Your task to perform on an android device: set an alarm Image 0: 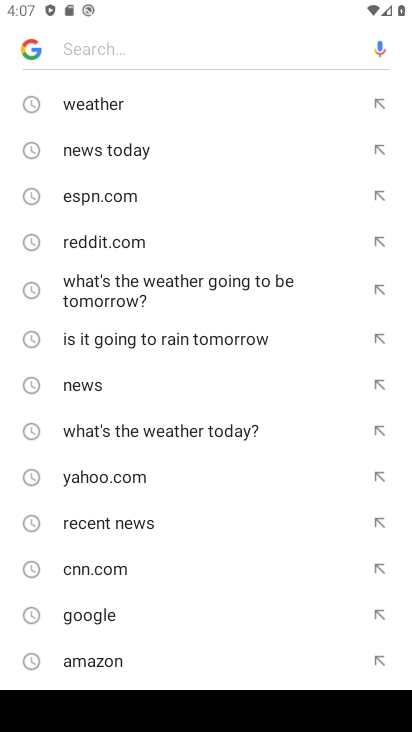
Step 0: press home button
Your task to perform on an android device: set an alarm Image 1: 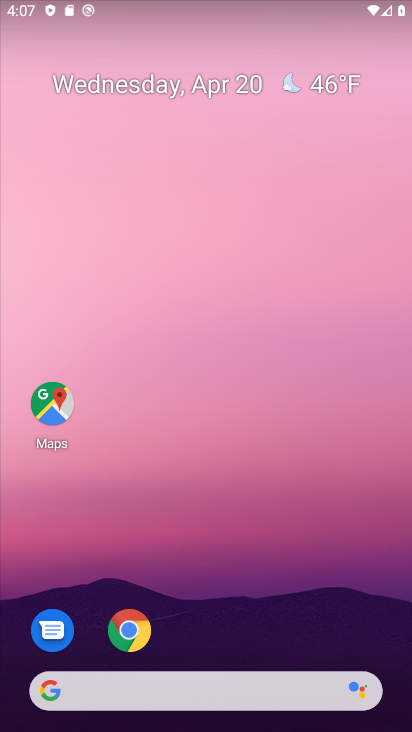
Step 1: drag from (194, 628) to (206, 127)
Your task to perform on an android device: set an alarm Image 2: 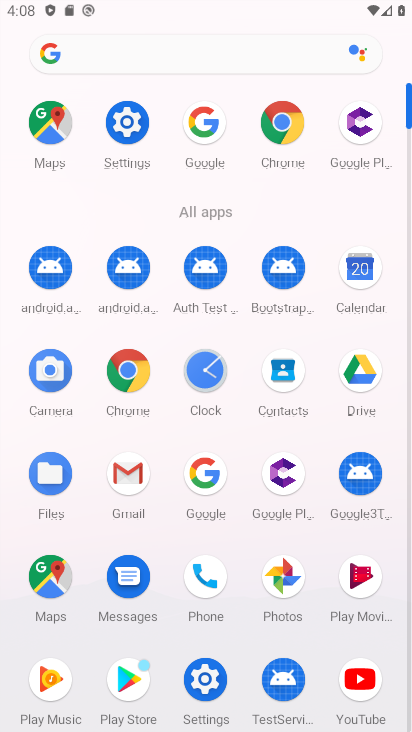
Step 2: click (206, 374)
Your task to perform on an android device: set an alarm Image 3: 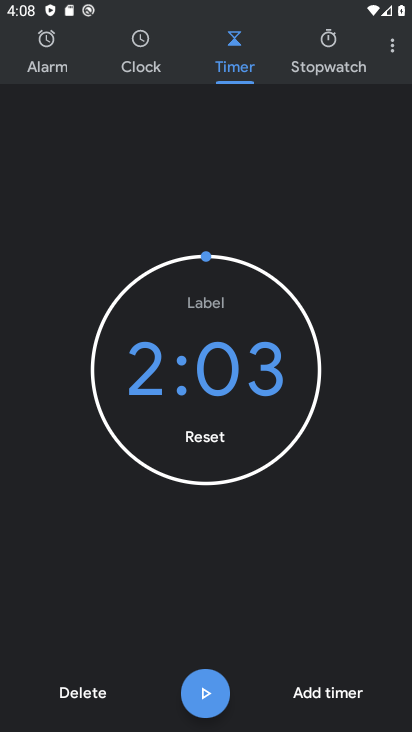
Step 3: click (79, 58)
Your task to perform on an android device: set an alarm Image 4: 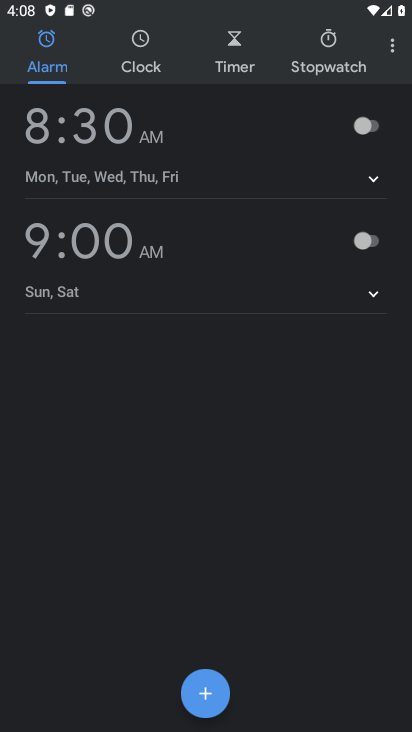
Step 4: click (203, 709)
Your task to perform on an android device: set an alarm Image 5: 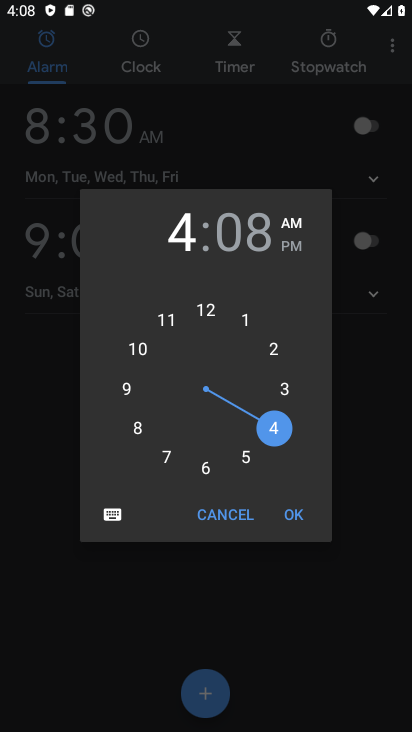
Step 5: click (151, 353)
Your task to perform on an android device: set an alarm Image 6: 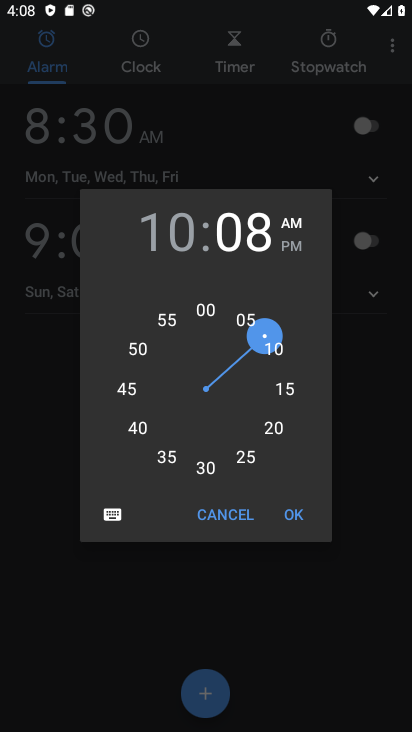
Step 6: click (271, 350)
Your task to perform on an android device: set an alarm Image 7: 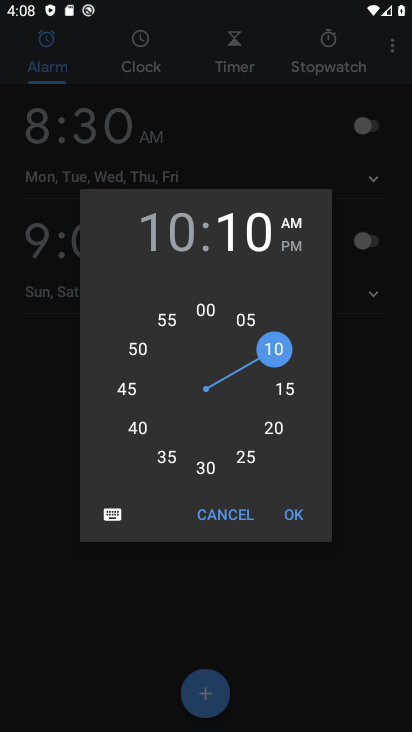
Step 7: click (296, 516)
Your task to perform on an android device: set an alarm Image 8: 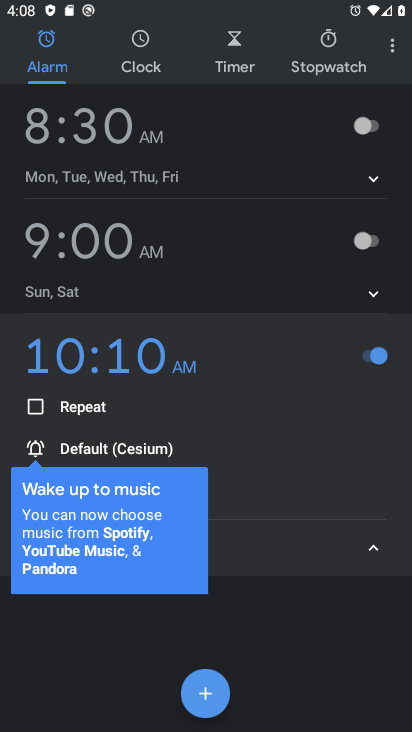
Step 8: task complete